Your task to perform on an android device: Do I have any events this weekend? Image 0: 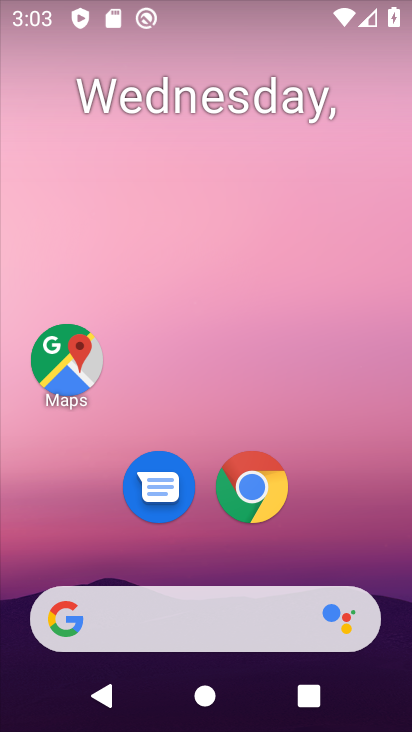
Step 0: drag from (381, 570) to (360, 213)
Your task to perform on an android device: Do I have any events this weekend? Image 1: 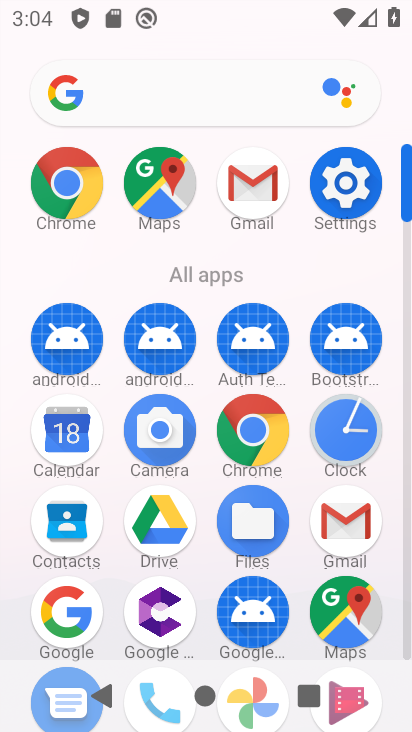
Step 1: click (83, 453)
Your task to perform on an android device: Do I have any events this weekend? Image 2: 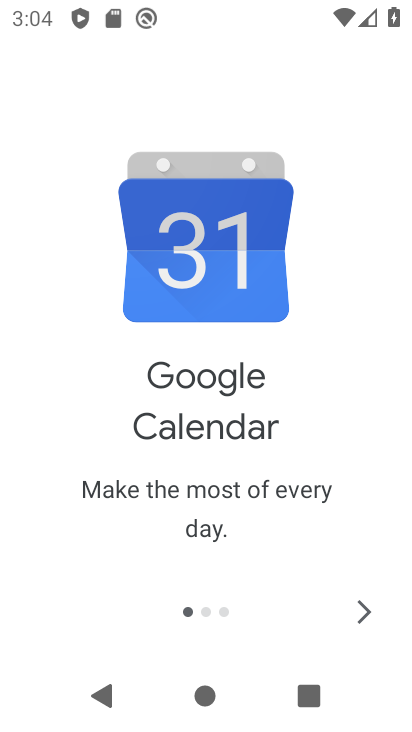
Step 2: click (363, 612)
Your task to perform on an android device: Do I have any events this weekend? Image 3: 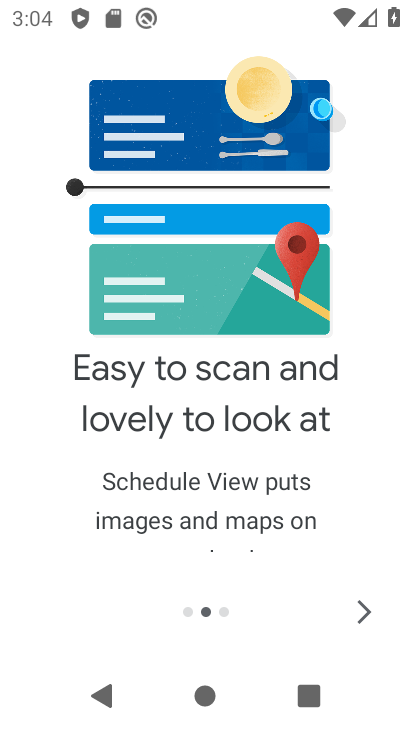
Step 3: click (363, 612)
Your task to perform on an android device: Do I have any events this weekend? Image 4: 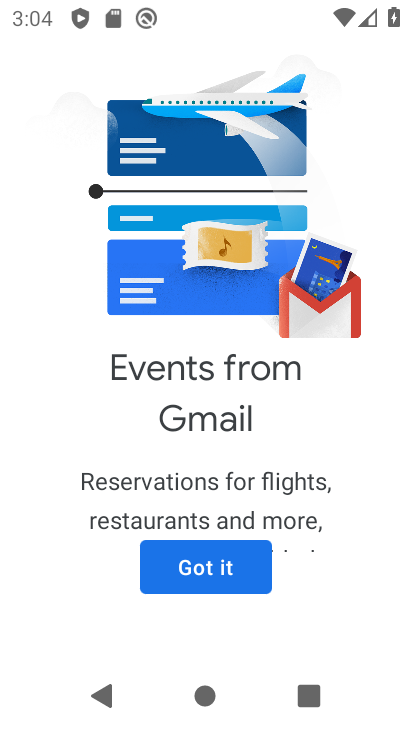
Step 4: click (258, 582)
Your task to perform on an android device: Do I have any events this weekend? Image 5: 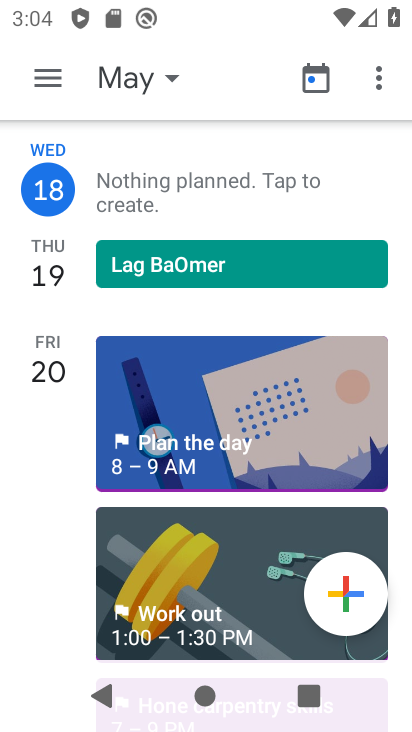
Step 5: drag from (254, 558) to (254, 451)
Your task to perform on an android device: Do I have any events this weekend? Image 6: 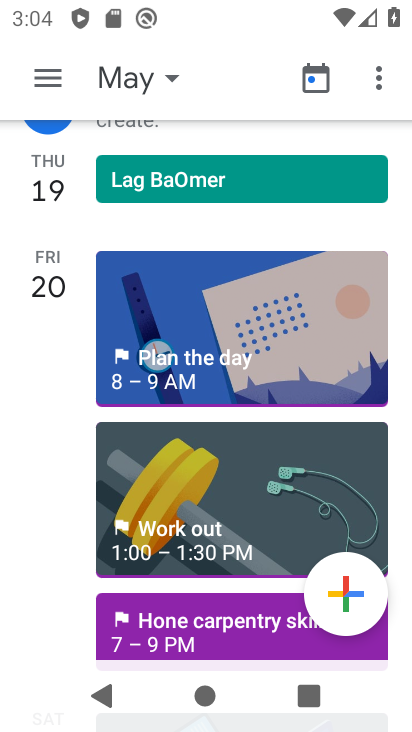
Step 6: drag from (237, 497) to (237, 421)
Your task to perform on an android device: Do I have any events this weekend? Image 7: 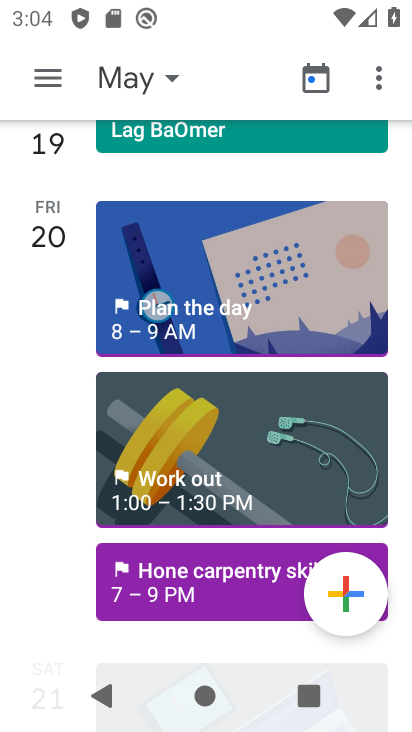
Step 7: drag from (245, 528) to (243, 383)
Your task to perform on an android device: Do I have any events this weekend? Image 8: 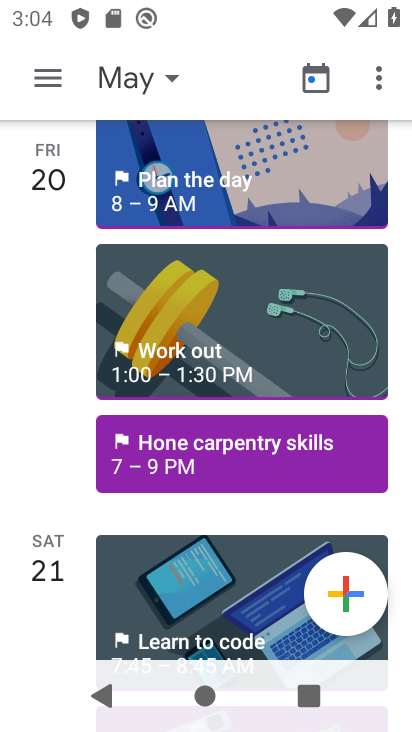
Step 8: drag from (225, 476) to (238, 368)
Your task to perform on an android device: Do I have any events this weekend? Image 9: 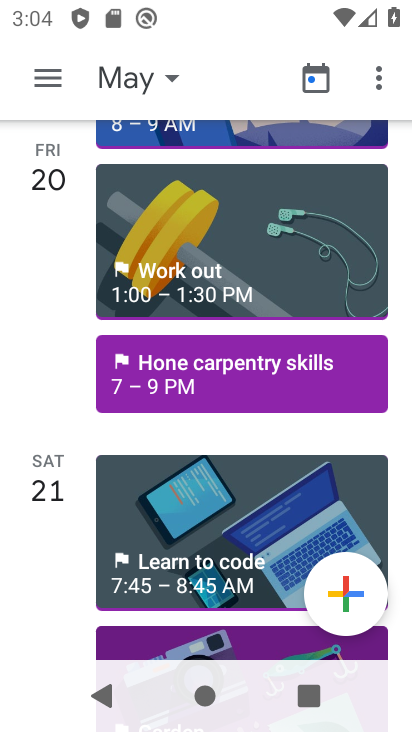
Step 9: click (228, 536)
Your task to perform on an android device: Do I have any events this weekend? Image 10: 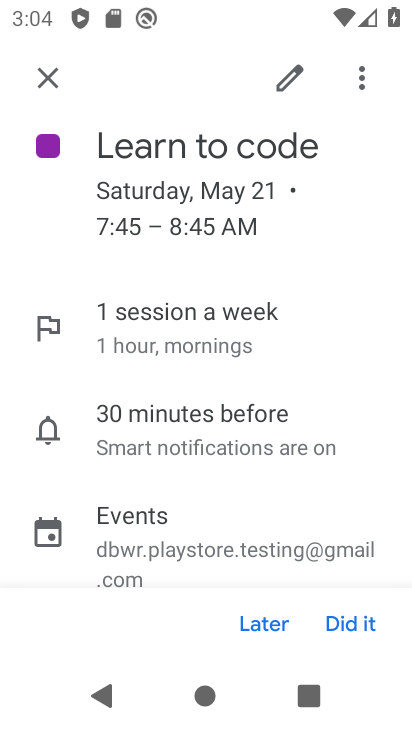
Step 10: task complete